Your task to perform on an android device: Search for vegetarian restaurants on Maps Image 0: 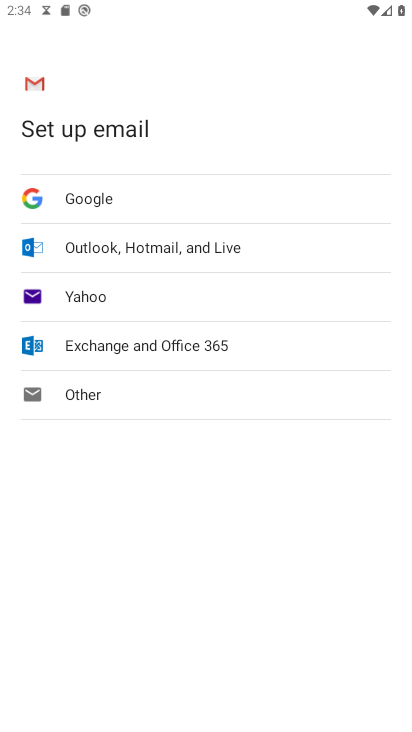
Step 0: press home button
Your task to perform on an android device: Search for vegetarian restaurants on Maps Image 1: 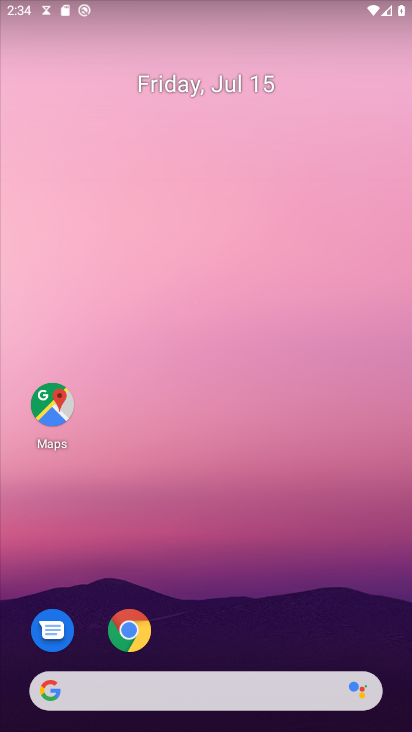
Step 1: drag from (292, 614) to (385, 26)
Your task to perform on an android device: Search for vegetarian restaurants on Maps Image 2: 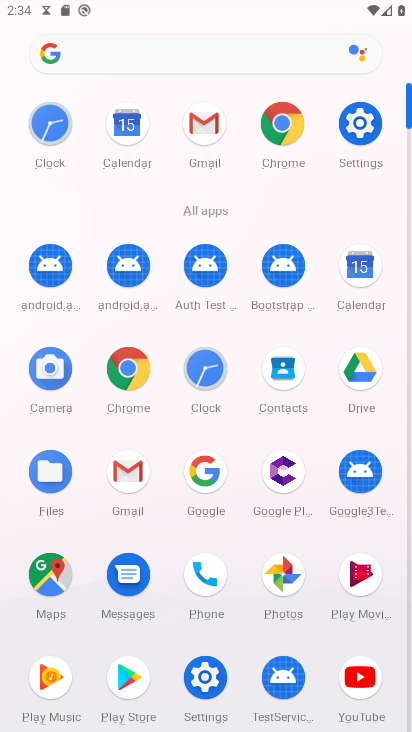
Step 2: click (52, 571)
Your task to perform on an android device: Search for vegetarian restaurants on Maps Image 3: 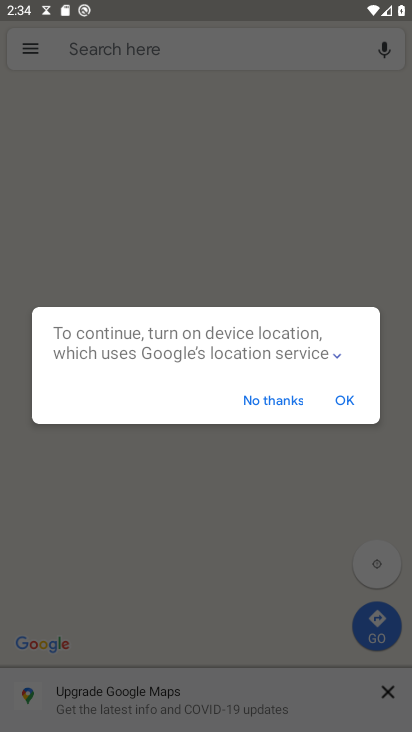
Step 3: click (263, 398)
Your task to perform on an android device: Search for vegetarian restaurants on Maps Image 4: 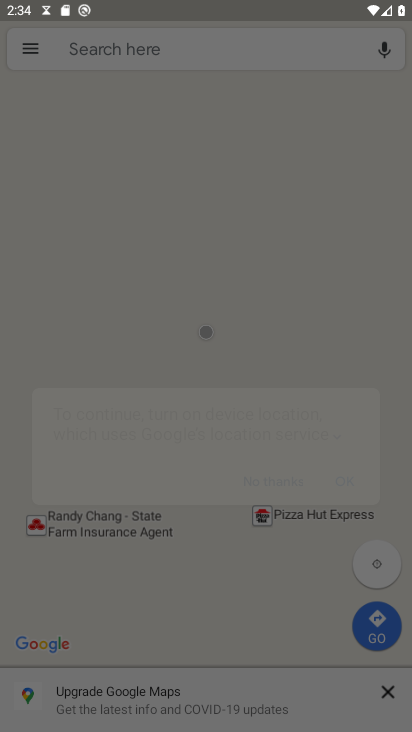
Step 4: click (170, 52)
Your task to perform on an android device: Search for vegetarian restaurants on Maps Image 5: 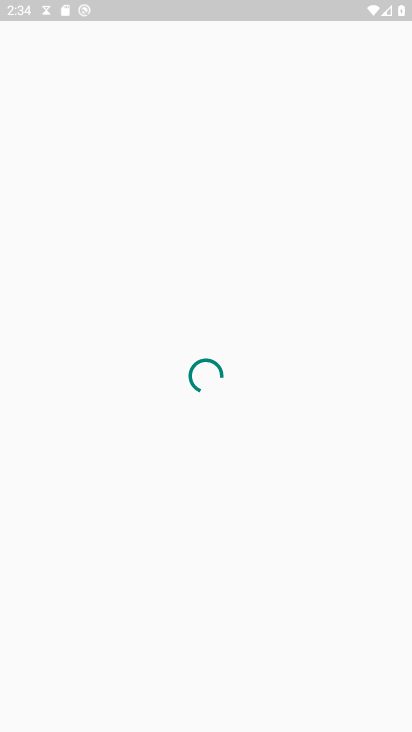
Step 5: click (245, 52)
Your task to perform on an android device: Search for vegetarian restaurants on Maps Image 6: 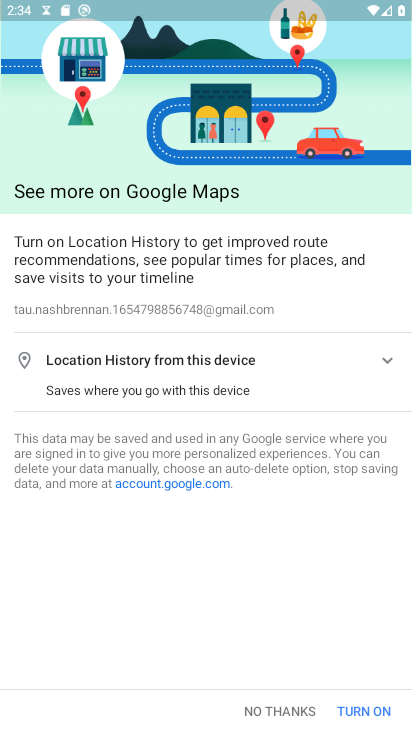
Step 6: press back button
Your task to perform on an android device: Search for vegetarian restaurants on Maps Image 7: 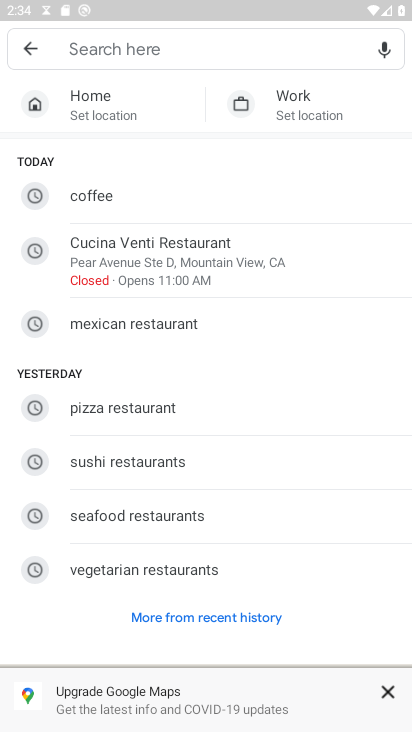
Step 7: click (157, 44)
Your task to perform on an android device: Search for vegetarian restaurants on Maps Image 8: 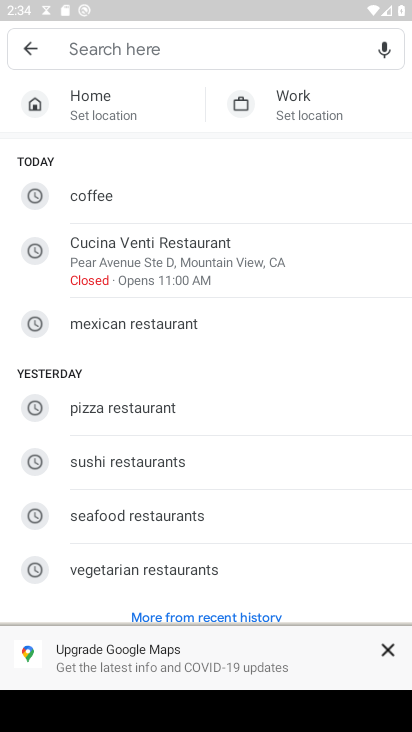
Step 8: click (134, 563)
Your task to perform on an android device: Search for vegetarian restaurants on Maps Image 9: 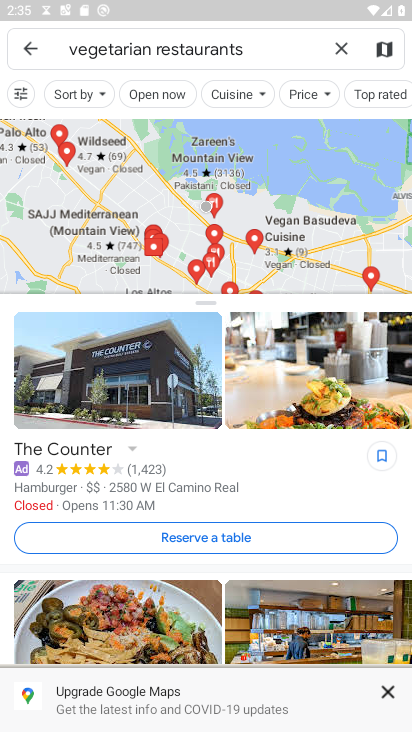
Step 9: task complete